Your task to perform on an android device: open app "Pandora - Music & Podcasts" Image 0: 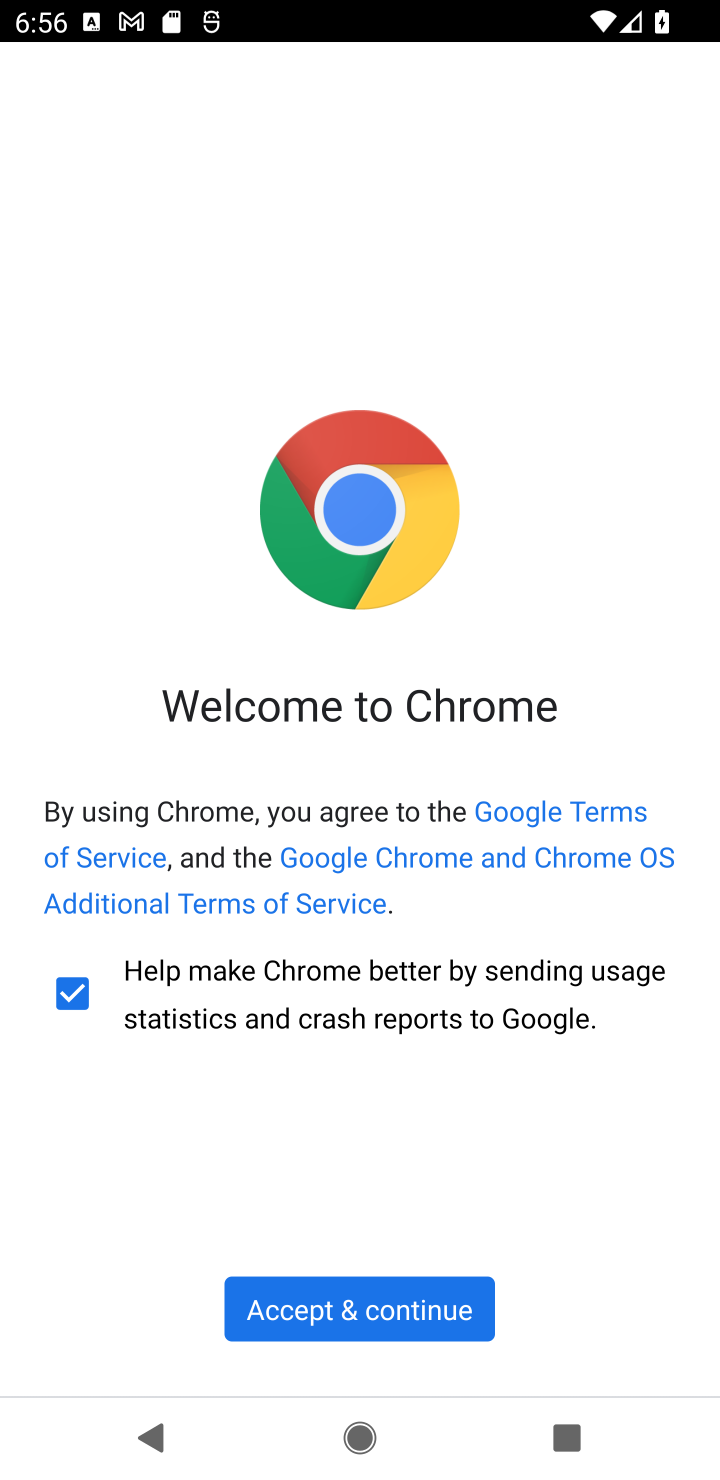
Step 0: press home button
Your task to perform on an android device: open app "Pandora - Music & Podcasts" Image 1: 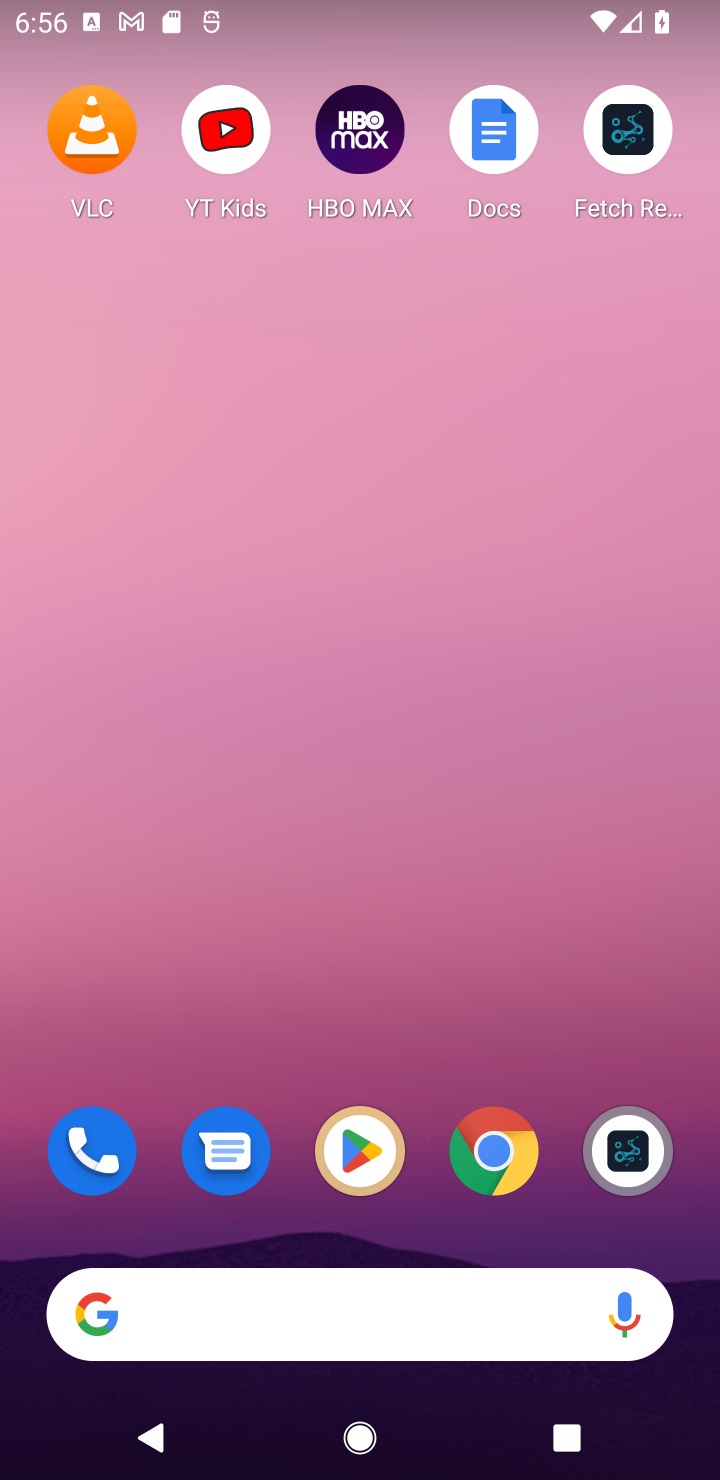
Step 1: click (346, 1141)
Your task to perform on an android device: open app "Pandora - Music & Podcasts" Image 2: 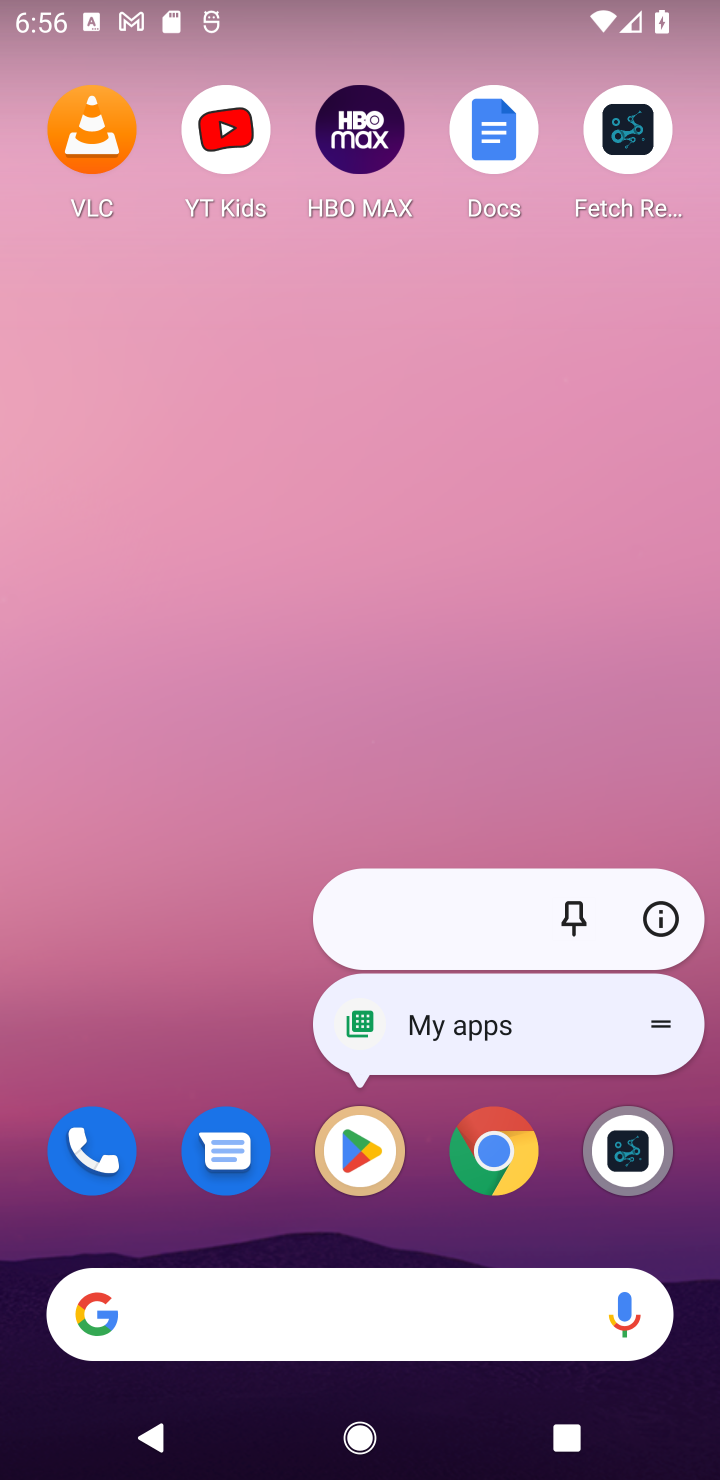
Step 2: click (362, 1150)
Your task to perform on an android device: open app "Pandora - Music & Podcasts" Image 3: 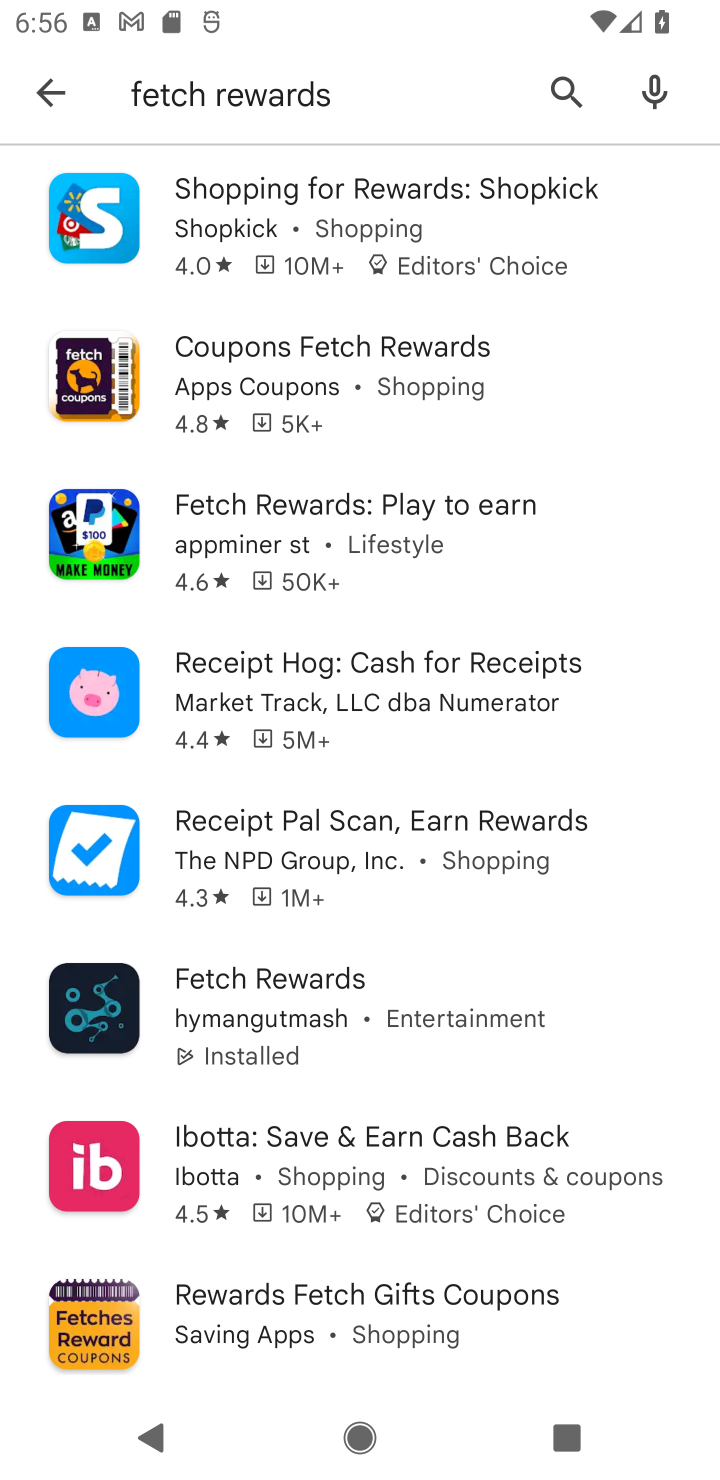
Step 3: click (557, 84)
Your task to perform on an android device: open app "Pandora - Music & Podcasts" Image 4: 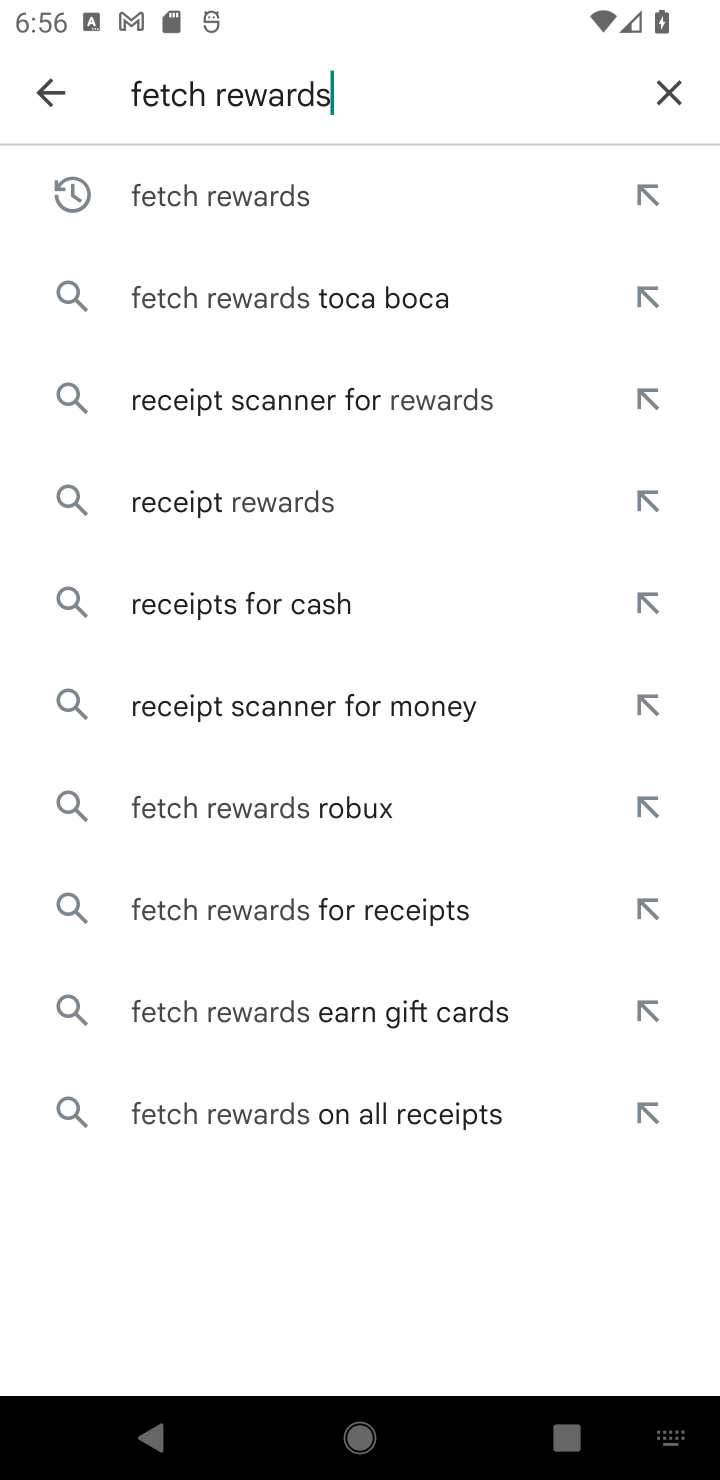
Step 4: click (656, 88)
Your task to perform on an android device: open app "Pandora - Music & Podcasts" Image 5: 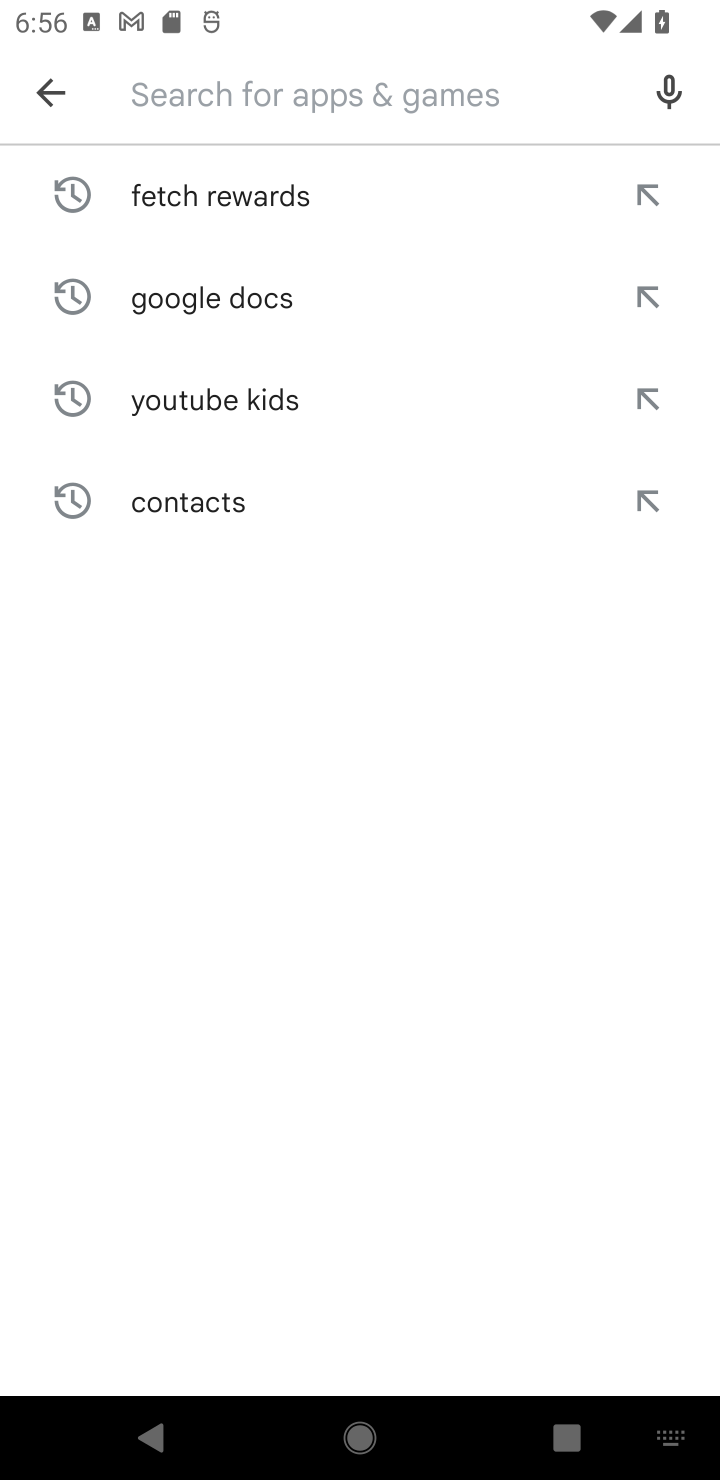
Step 5: type "Pandora - Music & Podcasts"
Your task to perform on an android device: open app "Pandora - Music & Podcasts" Image 6: 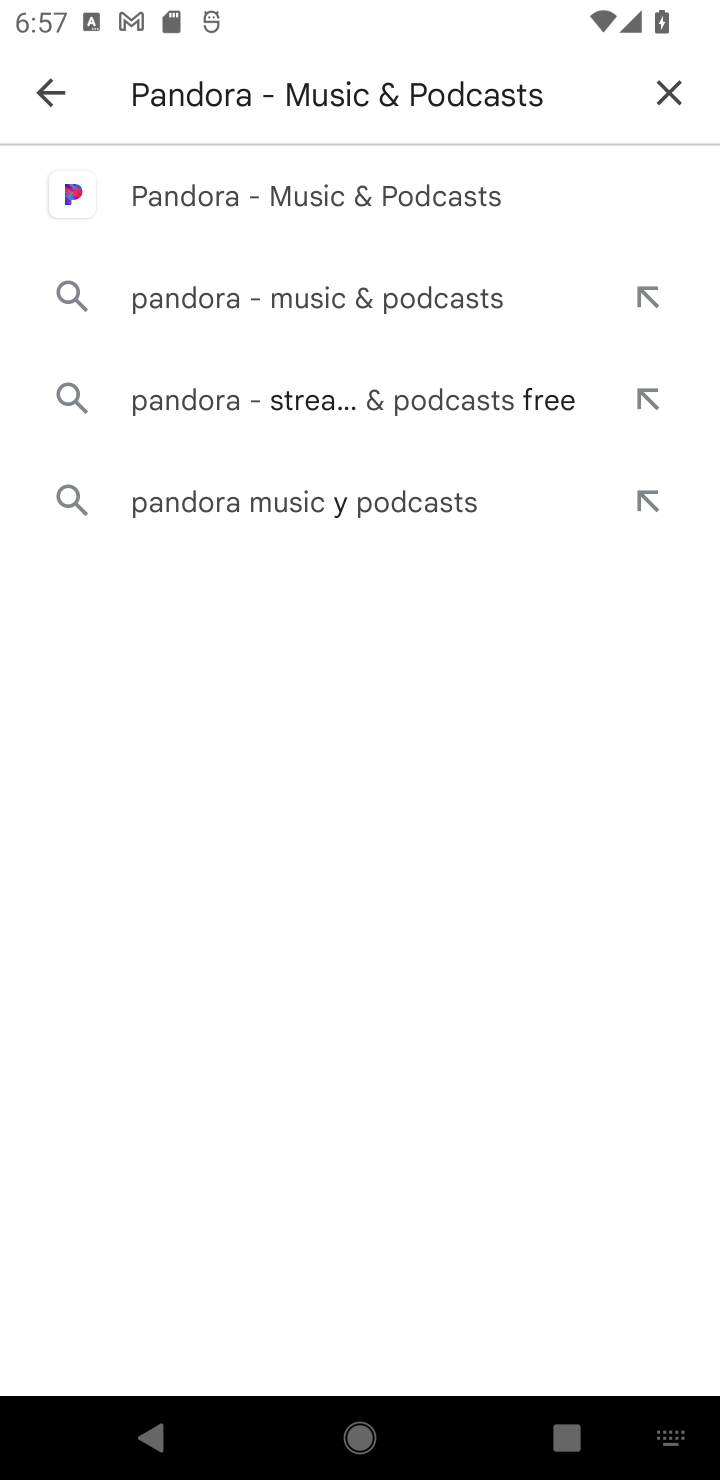
Step 6: click (259, 206)
Your task to perform on an android device: open app "Pandora - Music & Podcasts" Image 7: 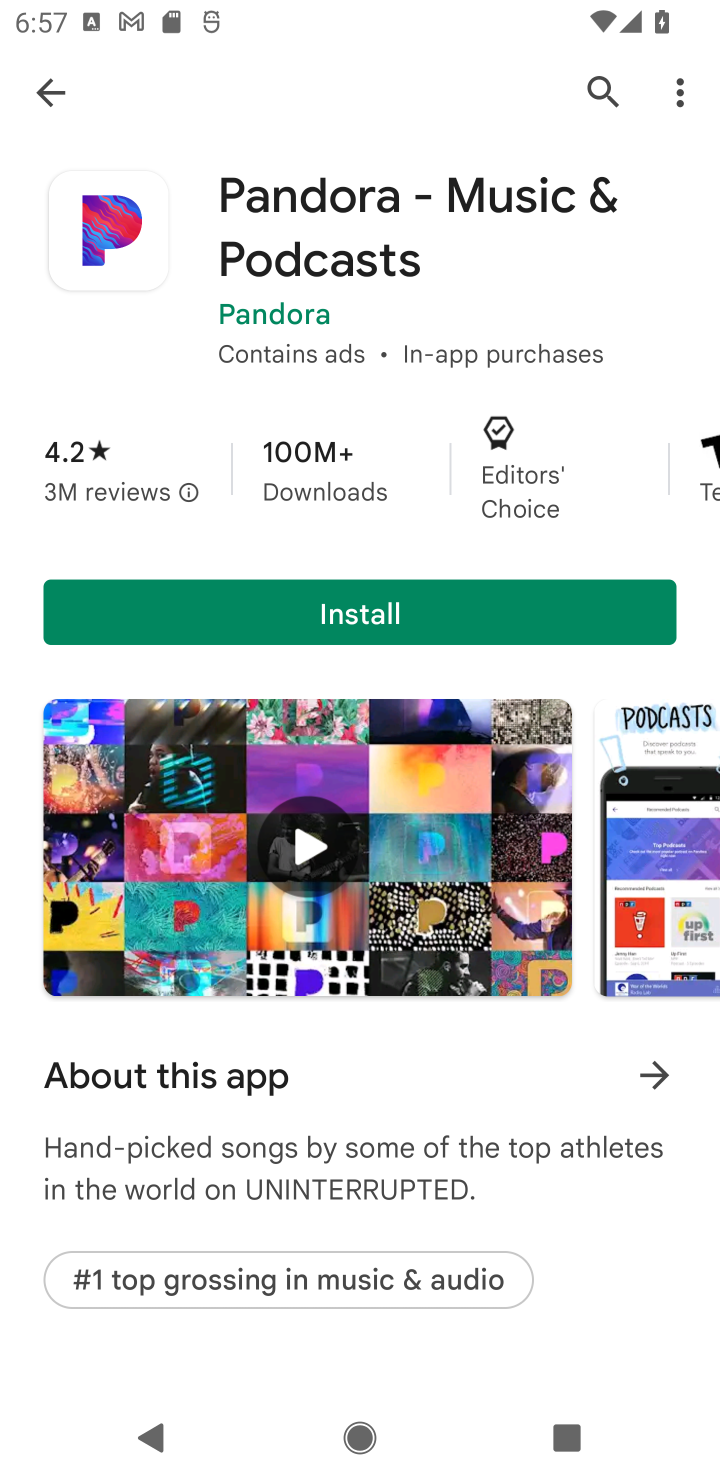
Step 7: task complete